Your task to perform on an android device: Search for the best way to get rid of a cold Image 0: 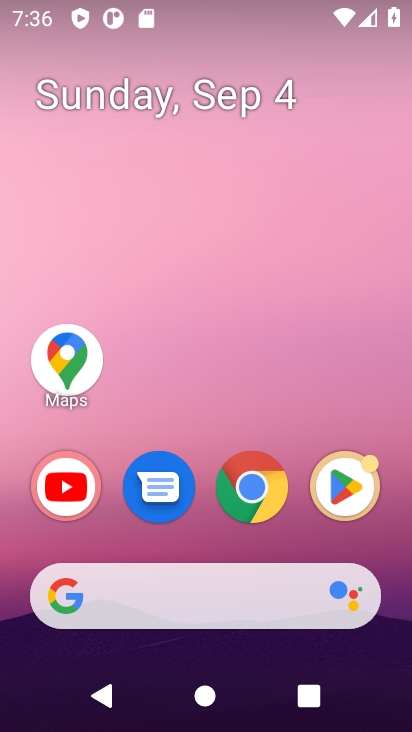
Step 0: click (259, 109)
Your task to perform on an android device: Search for the best way to get rid of a cold Image 1: 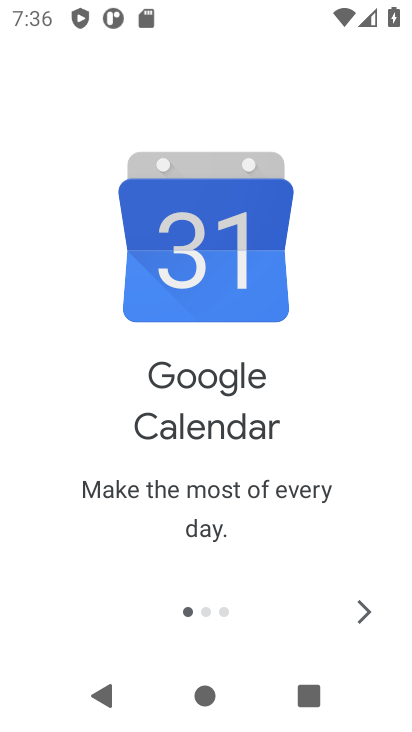
Step 1: click (356, 625)
Your task to perform on an android device: Search for the best way to get rid of a cold Image 2: 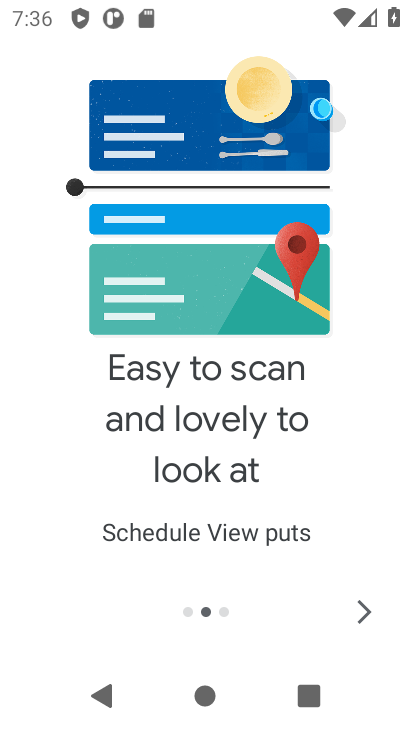
Step 2: click (356, 625)
Your task to perform on an android device: Search for the best way to get rid of a cold Image 3: 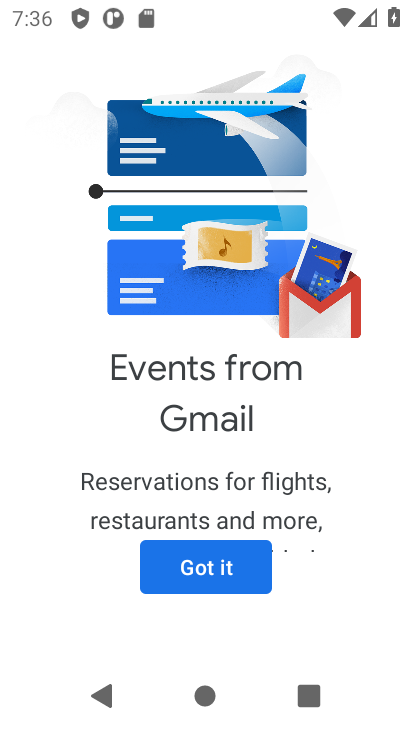
Step 3: click (211, 568)
Your task to perform on an android device: Search for the best way to get rid of a cold Image 4: 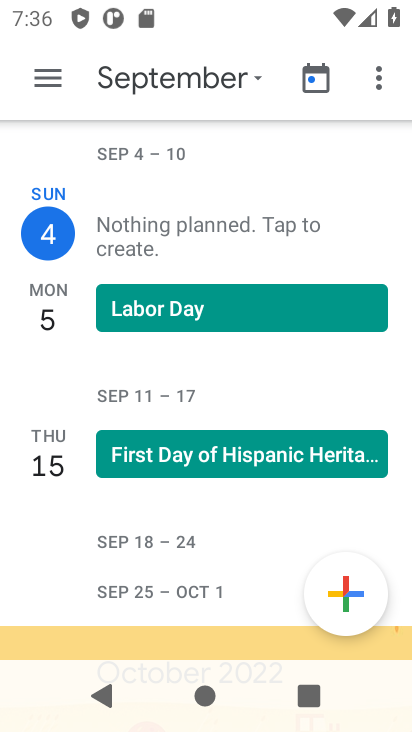
Step 4: press home button
Your task to perform on an android device: Search for the best way to get rid of a cold Image 5: 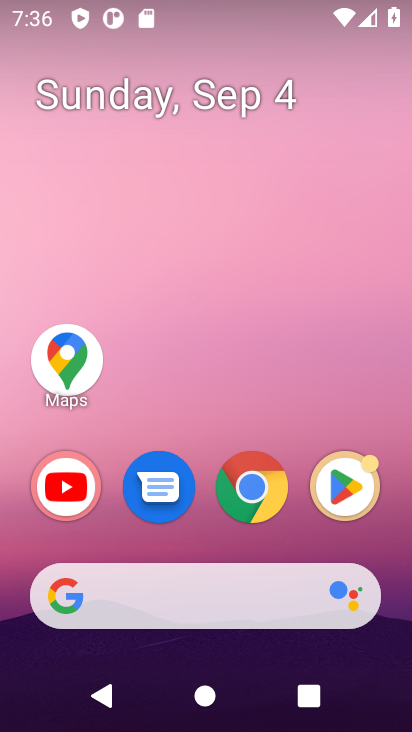
Step 5: click (169, 616)
Your task to perform on an android device: Search for the best way to get rid of a cold Image 6: 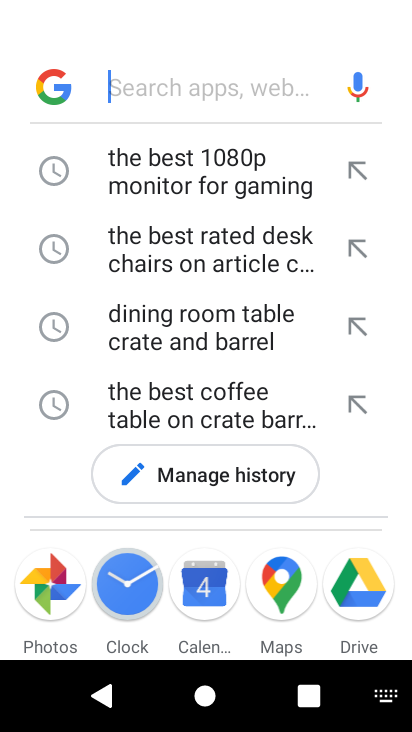
Step 6: type "the best way to get rid of a cold"
Your task to perform on an android device: Search for the best way to get rid of a cold Image 7: 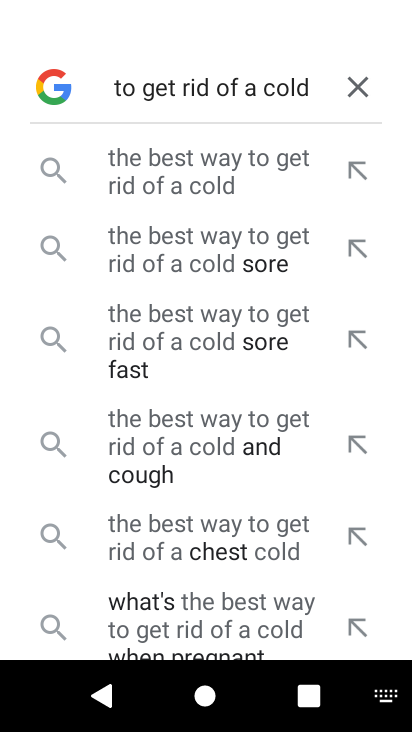
Step 7: click (216, 145)
Your task to perform on an android device: Search for the best way to get rid of a cold Image 8: 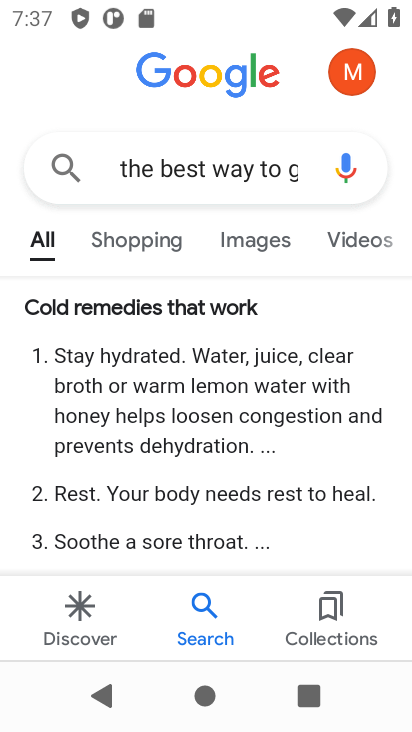
Step 8: task complete